Your task to perform on an android device: delete a single message in the gmail app Image 0: 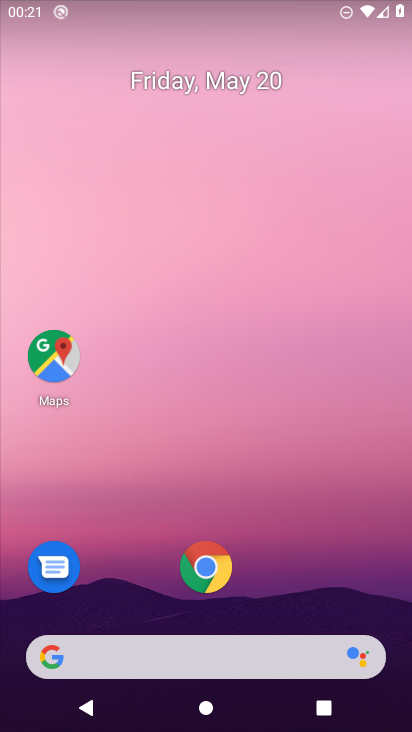
Step 0: press home button
Your task to perform on an android device: delete a single message in the gmail app Image 1: 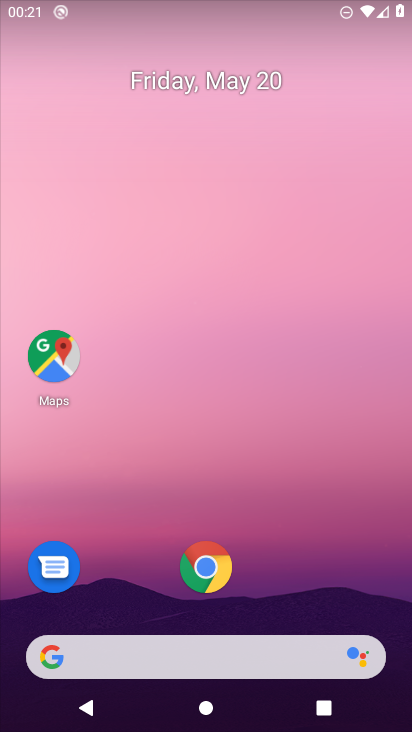
Step 1: drag from (276, 616) to (344, 30)
Your task to perform on an android device: delete a single message in the gmail app Image 2: 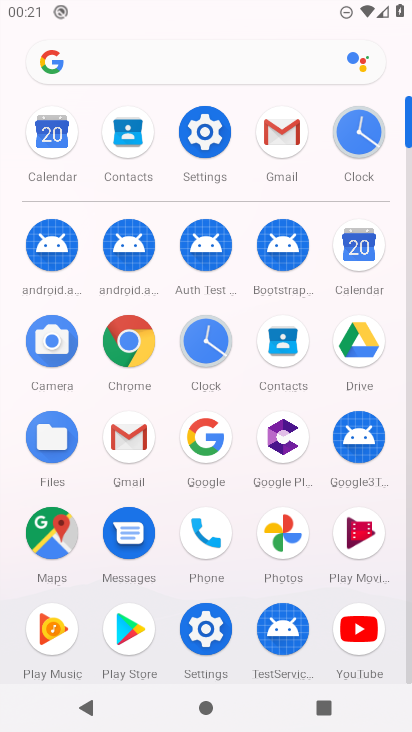
Step 2: click (281, 121)
Your task to perform on an android device: delete a single message in the gmail app Image 3: 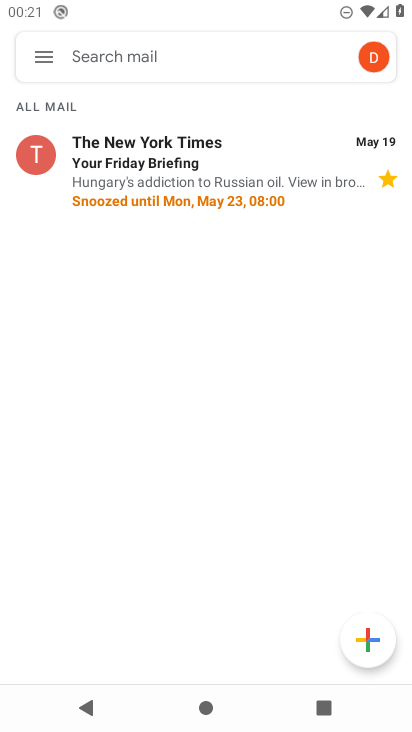
Step 3: click (42, 152)
Your task to perform on an android device: delete a single message in the gmail app Image 4: 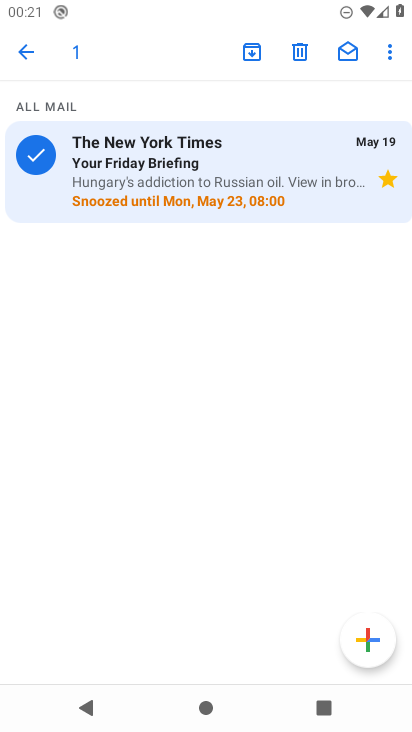
Step 4: click (298, 50)
Your task to perform on an android device: delete a single message in the gmail app Image 5: 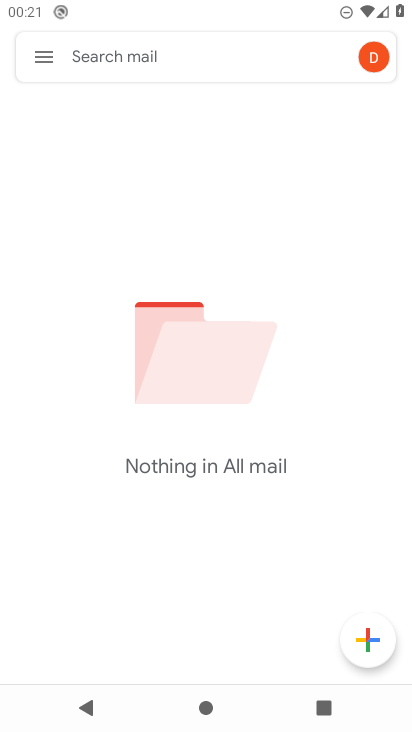
Step 5: task complete